Your task to perform on an android device: open chrome and create a bookmark for the current page Image 0: 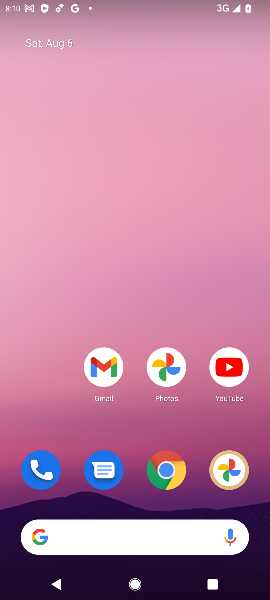
Step 0: drag from (159, 531) to (159, 147)
Your task to perform on an android device: open chrome and create a bookmark for the current page Image 1: 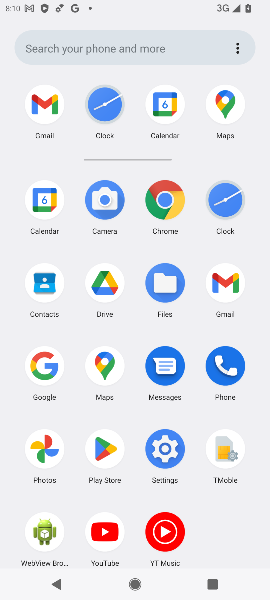
Step 1: click (160, 220)
Your task to perform on an android device: open chrome and create a bookmark for the current page Image 2: 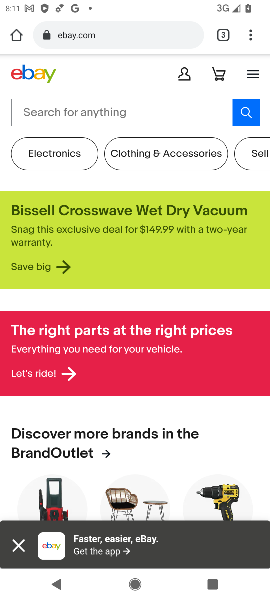
Step 2: click (252, 36)
Your task to perform on an android device: open chrome and create a bookmark for the current page Image 3: 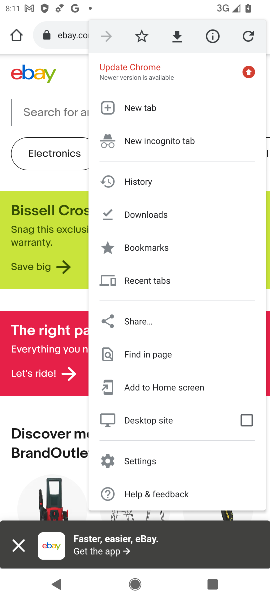
Step 3: click (144, 38)
Your task to perform on an android device: open chrome and create a bookmark for the current page Image 4: 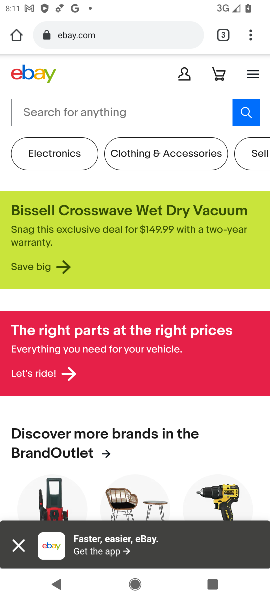
Step 4: task complete